Your task to perform on an android device: Go to Maps Image 0: 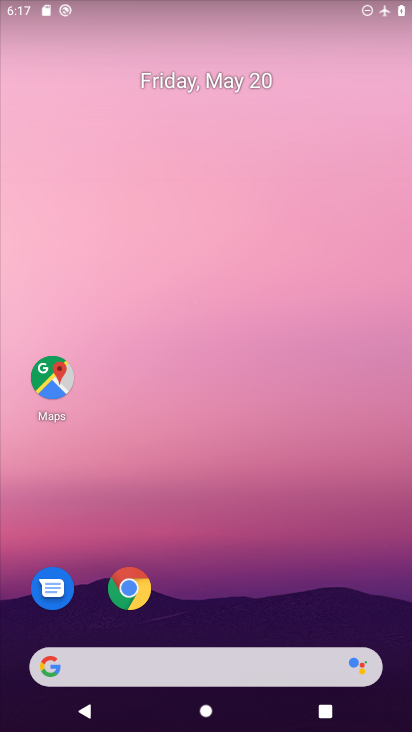
Step 0: click (68, 392)
Your task to perform on an android device: Go to Maps Image 1: 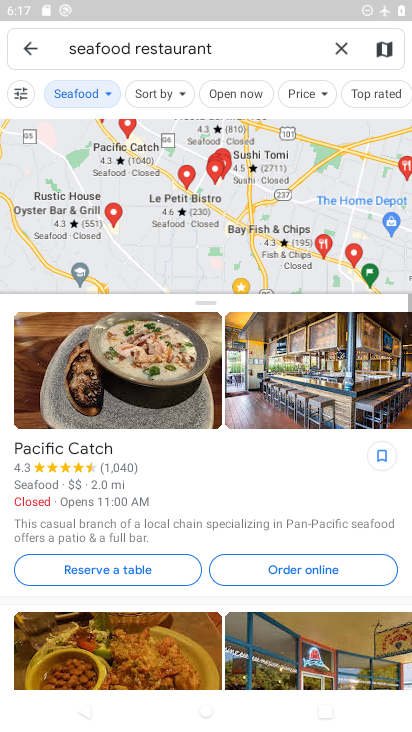
Step 1: task complete